Your task to perform on an android device: Open ESPN.com Image 0: 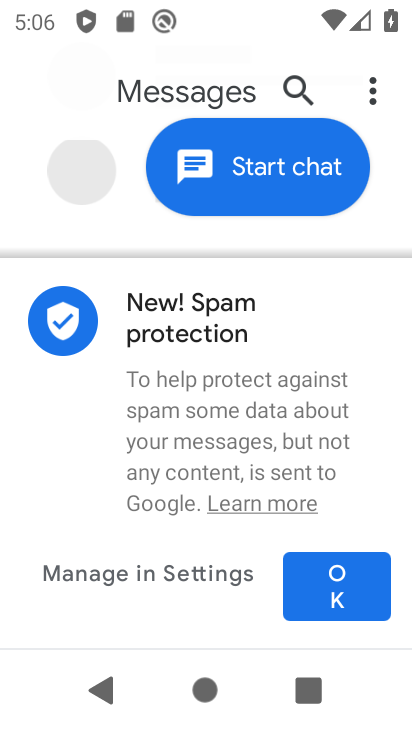
Step 0: press home button
Your task to perform on an android device: Open ESPN.com Image 1: 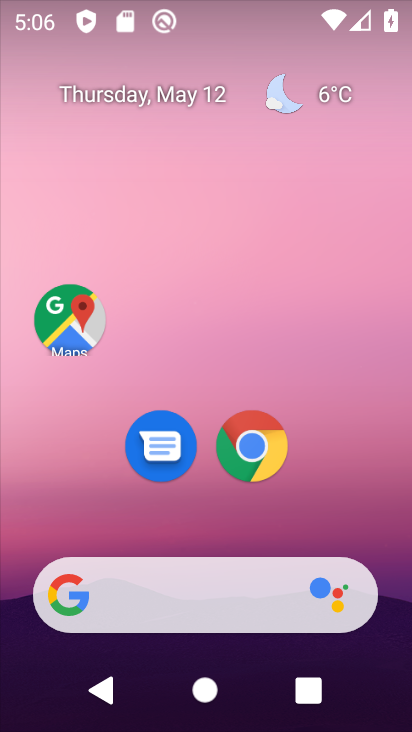
Step 1: click (247, 441)
Your task to perform on an android device: Open ESPN.com Image 2: 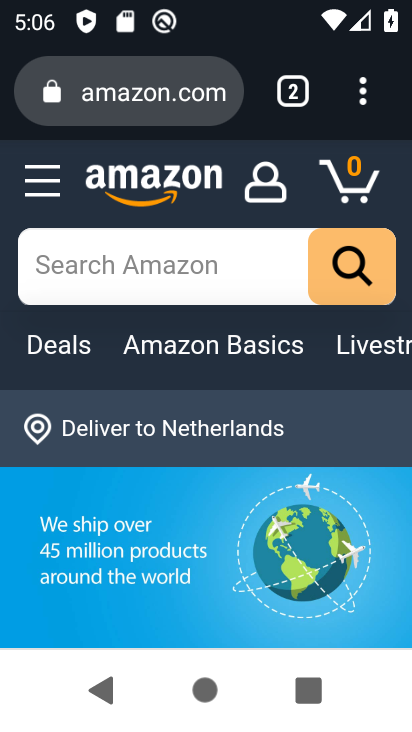
Step 2: drag from (363, 93) to (101, 188)
Your task to perform on an android device: Open ESPN.com Image 3: 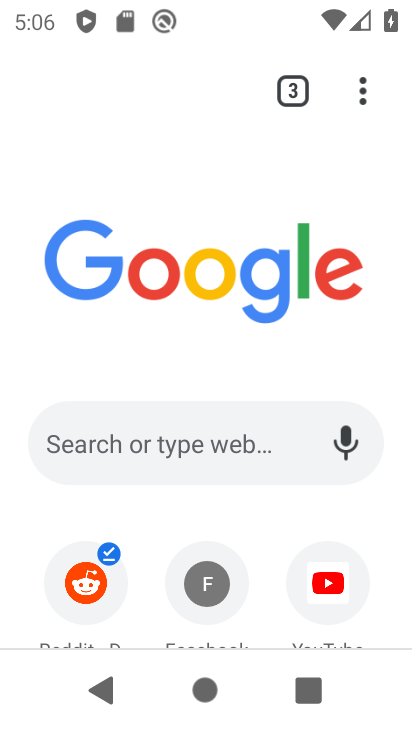
Step 3: click (135, 447)
Your task to perform on an android device: Open ESPN.com Image 4: 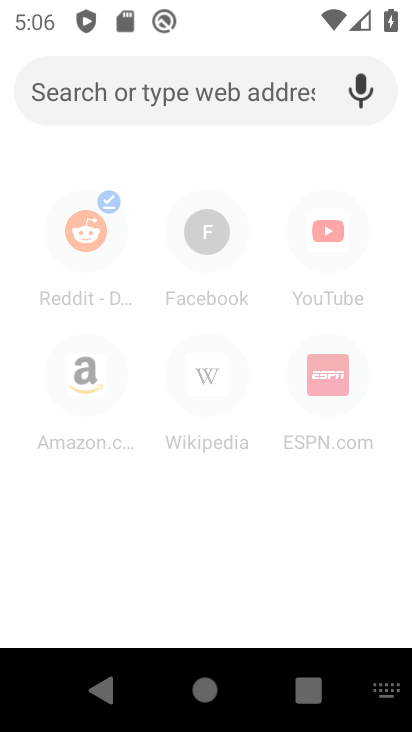
Step 4: type "ESPN.com"
Your task to perform on an android device: Open ESPN.com Image 5: 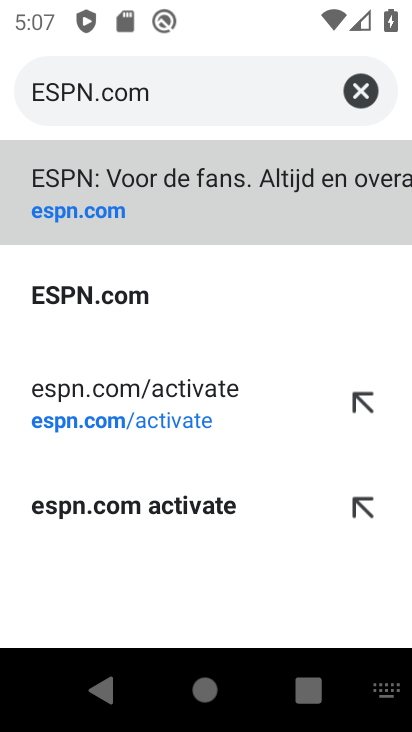
Step 5: click (67, 206)
Your task to perform on an android device: Open ESPN.com Image 6: 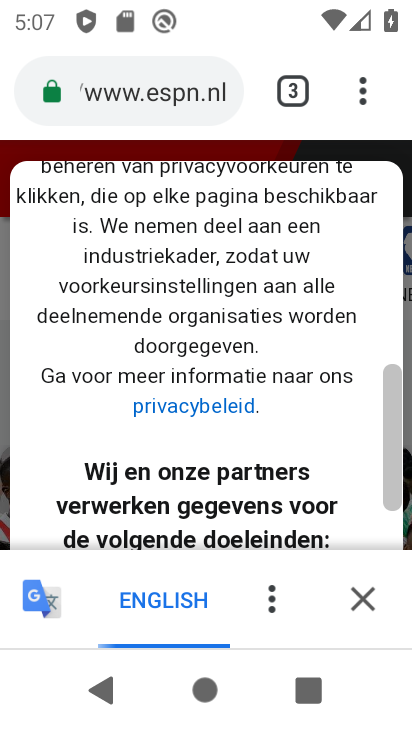
Step 6: task complete